Your task to perform on an android device: open app "Messages" Image 0: 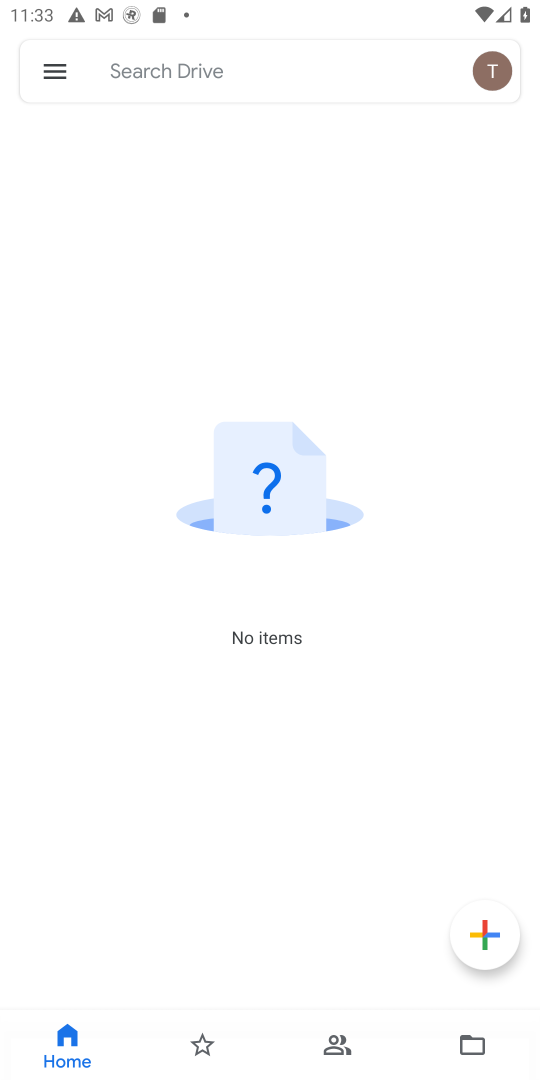
Step 0: press home button
Your task to perform on an android device: open app "Messages" Image 1: 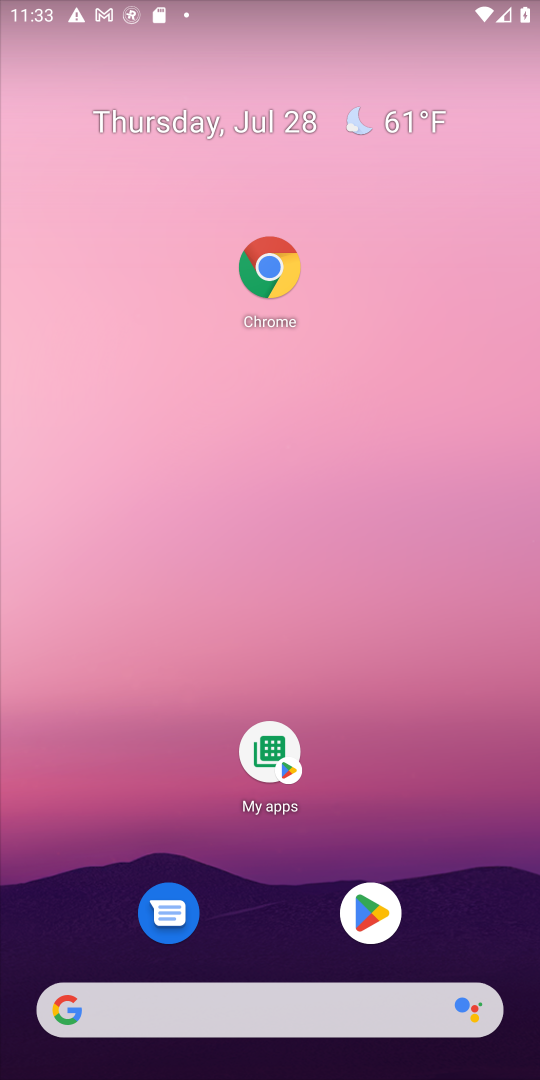
Step 1: click (376, 901)
Your task to perform on an android device: open app "Messages" Image 2: 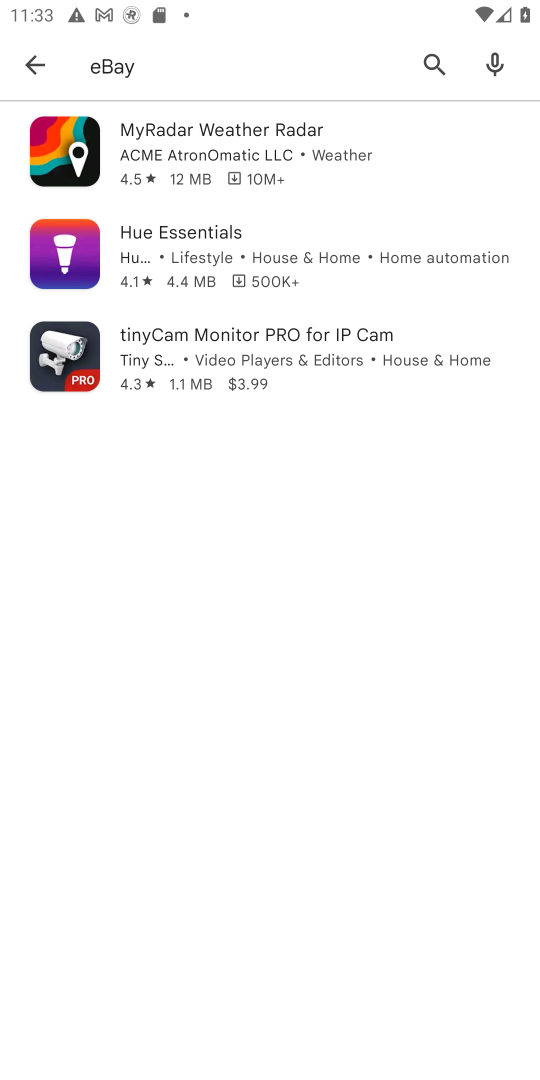
Step 2: click (433, 58)
Your task to perform on an android device: open app "Messages" Image 3: 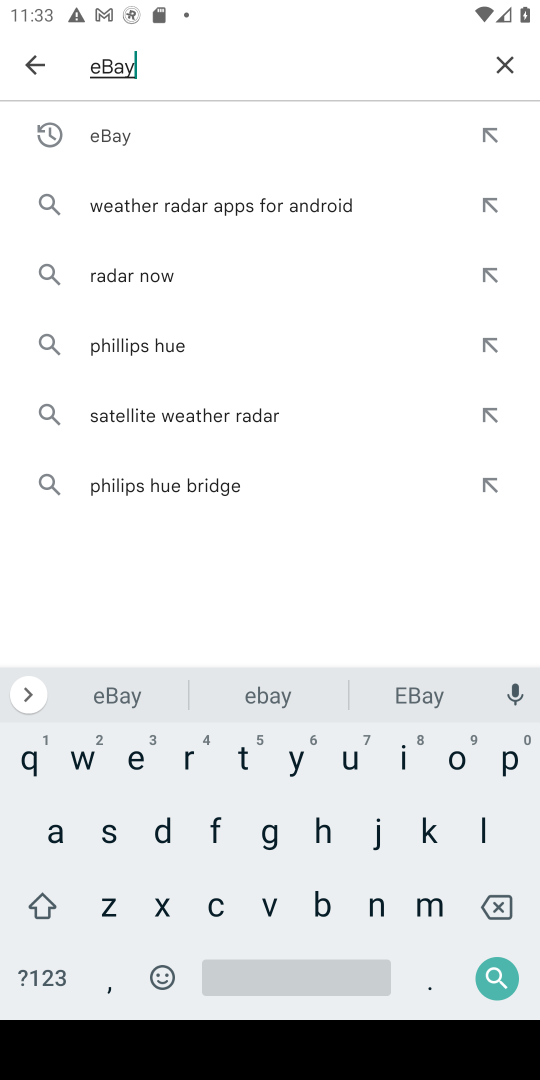
Step 3: click (510, 67)
Your task to perform on an android device: open app "Messages" Image 4: 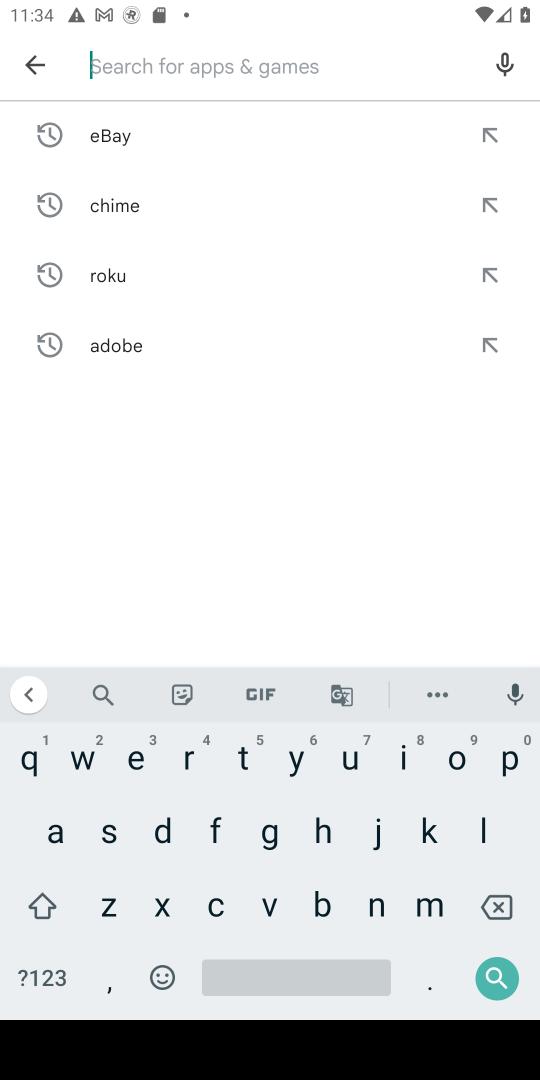
Step 4: click (423, 911)
Your task to perform on an android device: open app "Messages" Image 5: 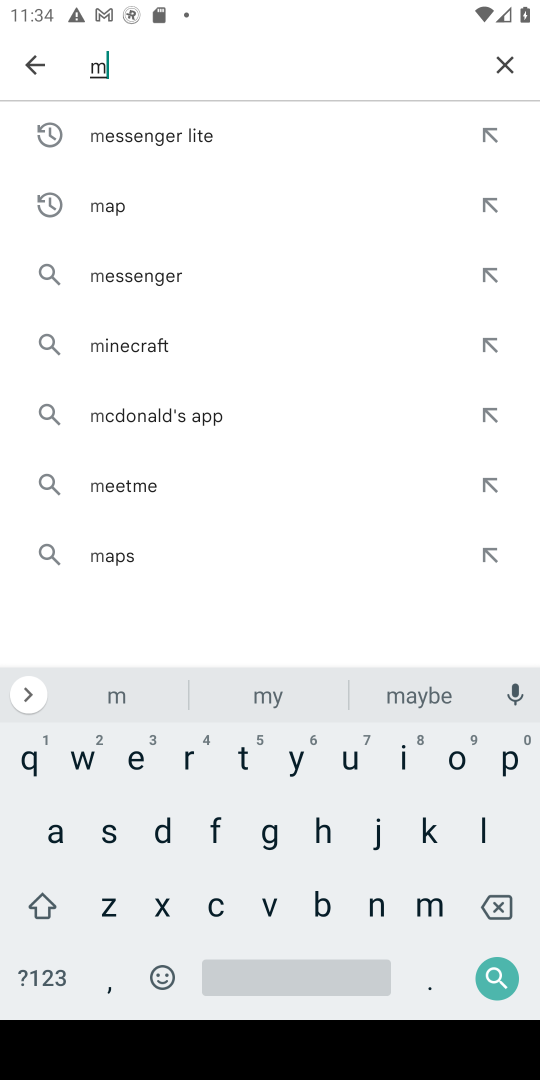
Step 5: click (139, 756)
Your task to perform on an android device: open app "Messages" Image 6: 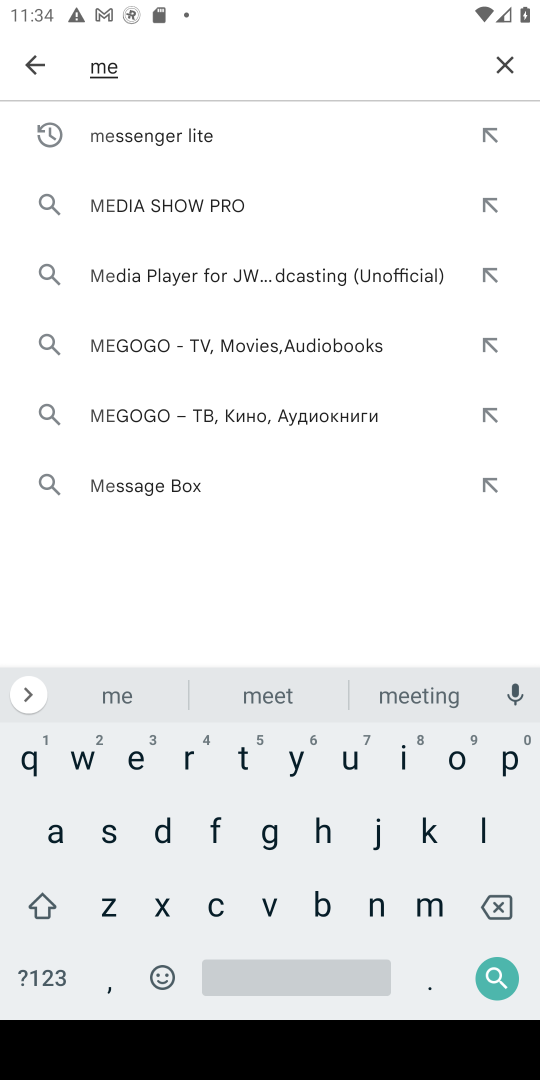
Step 6: click (109, 829)
Your task to perform on an android device: open app "Messages" Image 7: 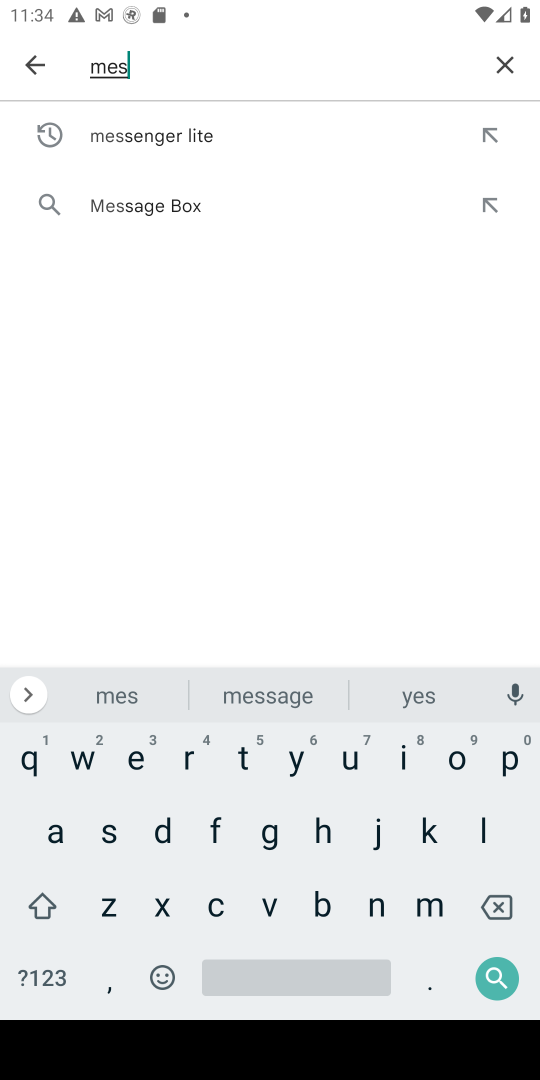
Step 7: click (109, 829)
Your task to perform on an android device: open app "Messages" Image 8: 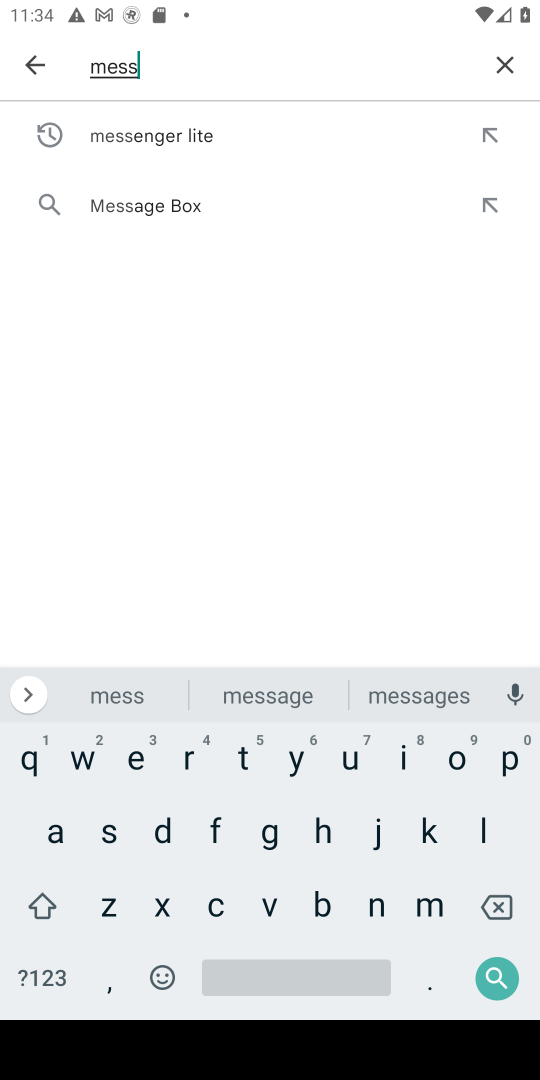
Step 8: click (266, 695)
Your task to perform on an android device: open app "Messages" Image 9: 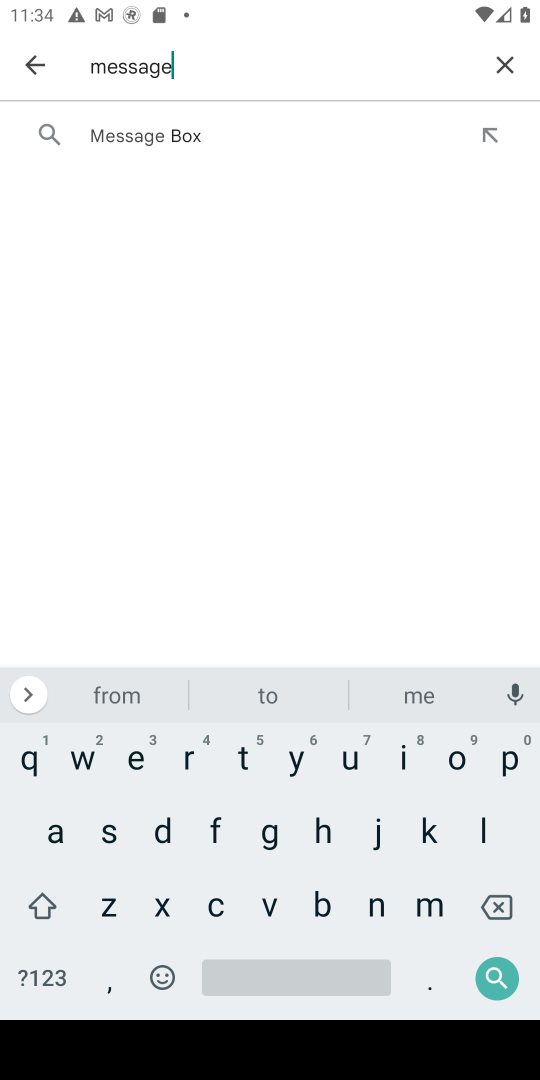
Step 9: click (498, 965)
Your task to perform on an android device: open app "Messages" Image 10: 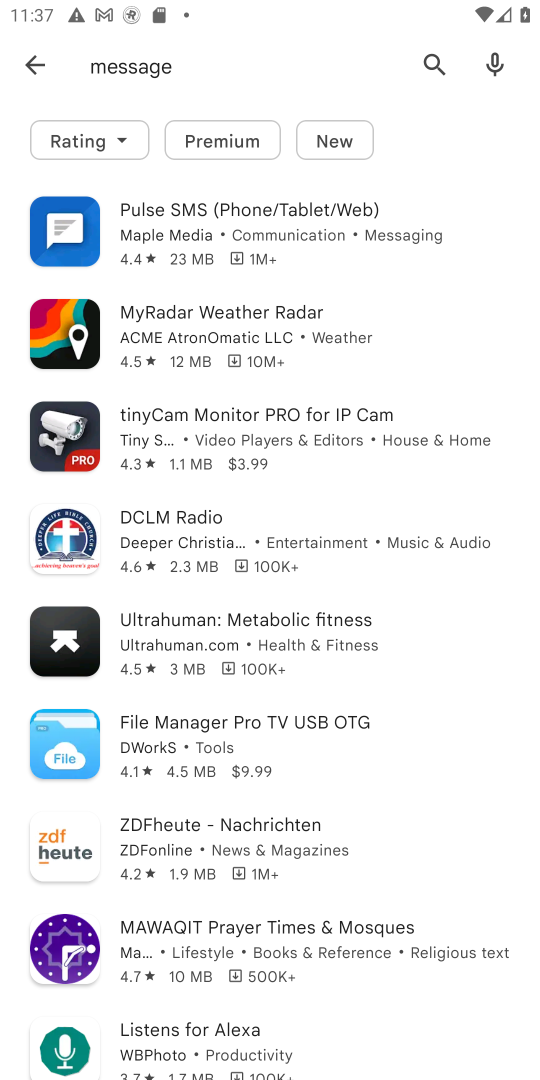
Step 10: task complete